Your task to perform on an android device: open device folders in google photos Image 0: 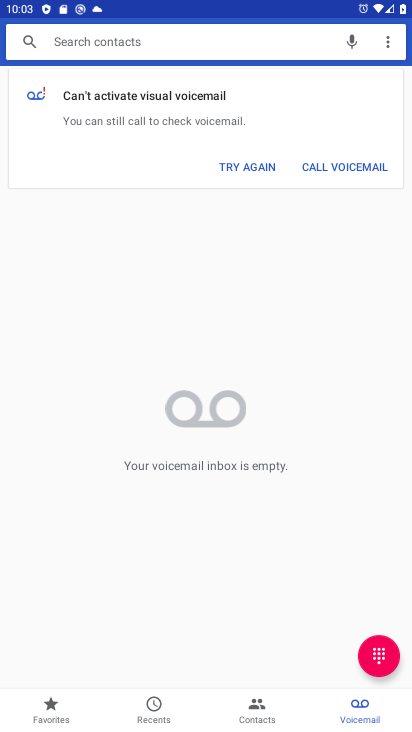
Step 0: task complete